Your task to perform on an android device: Search for Mexican restaurants on Maps Image 0: 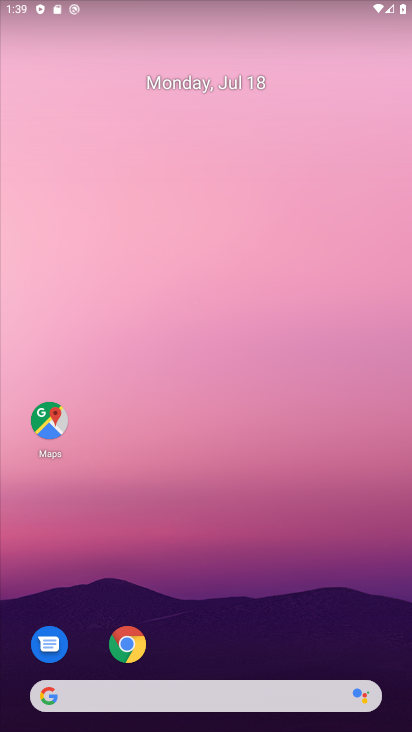
Step 0: click (46, 413)
Your task to perform on an android device: Search for Mexican restaurants on Maps Image 1: 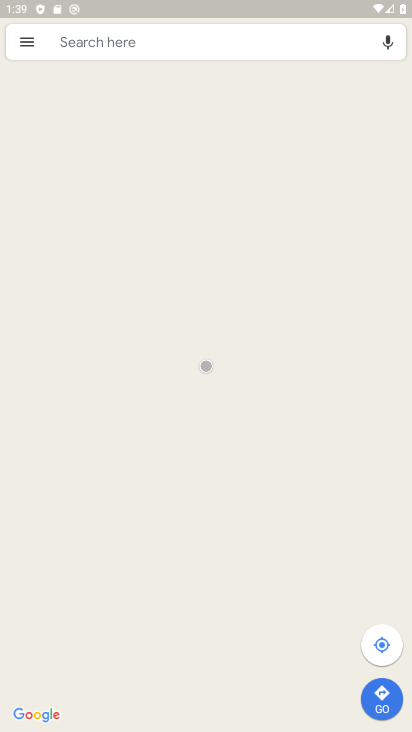
Step 1: click (76, 37)
Your task to perform on an android device: Search for Mexican restaurants on Maps Image 2: 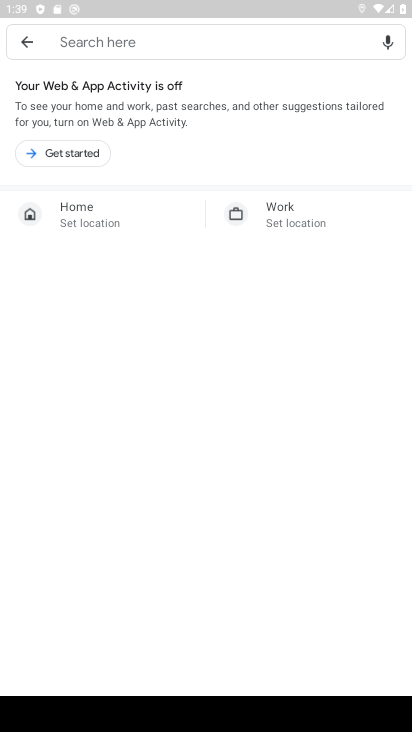
Step 2: type "mexican restaurants"
Your task to perform on an android device: Search for Mexican restaurants on Maps Image 3: 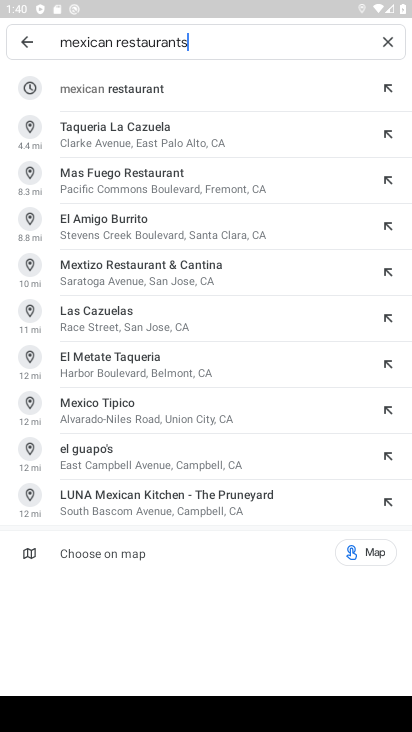
Step 3: click (96, 80)
Your task to perform on an android device: Search for Mexican restaurants on Maps Image 4: 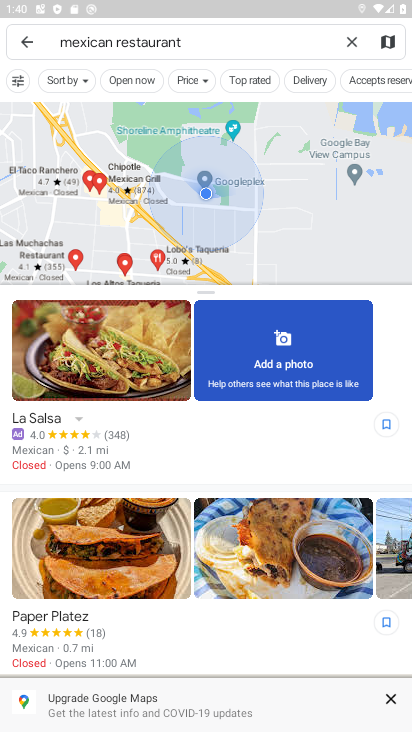
Step 4: task complete